Your task to perform on an android device: Open calendar and show me the third week of next month Image 0: 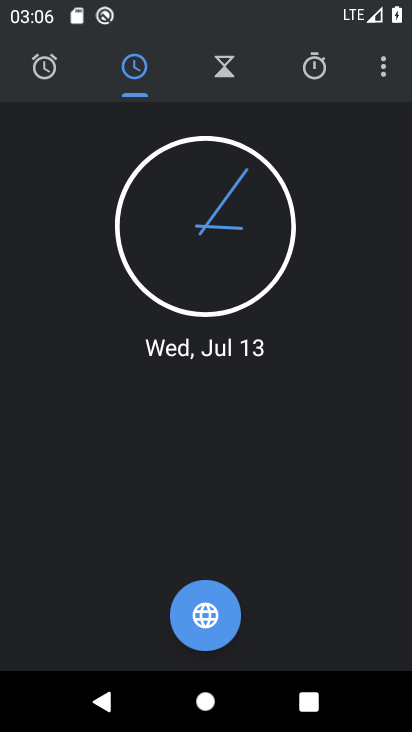
Step 0: press home button
Your task to perform on an android device: Open calendar and show me the third week of next month Image 1: 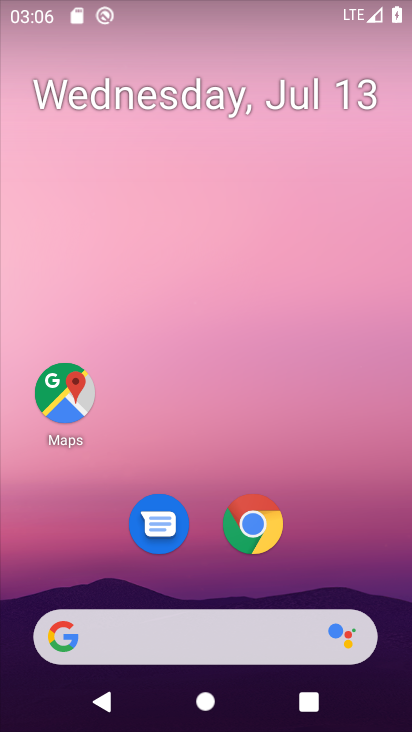
Step 1: drag from (328, 546) to (285, 0)
Your task to perform on an android device: Open calendar and show me the third week of next month Image 2: 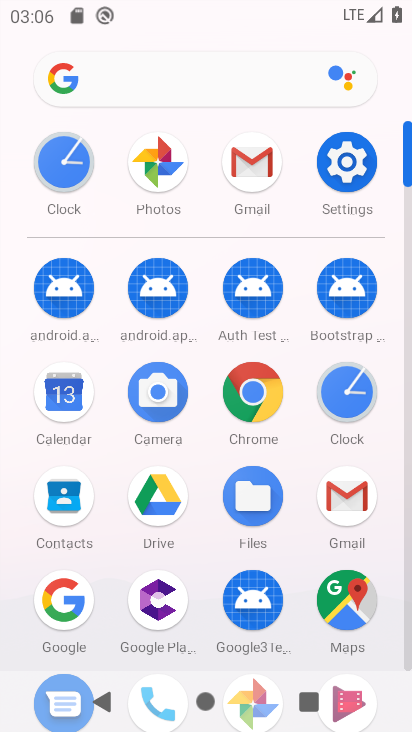
Step 2: click (65, 388)
Your task to perform on an android device: Open calendar and show me the third week of next month Image 3: 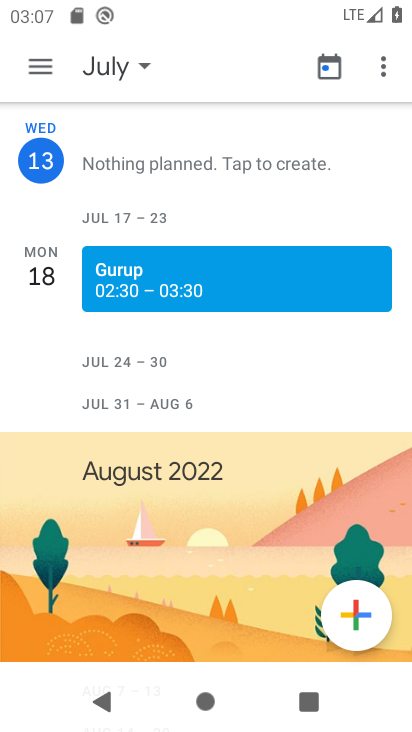
Step 3: click (43, 61)
Your task to perform on an android device: Open calendar and show me the third week of next month Image 4: 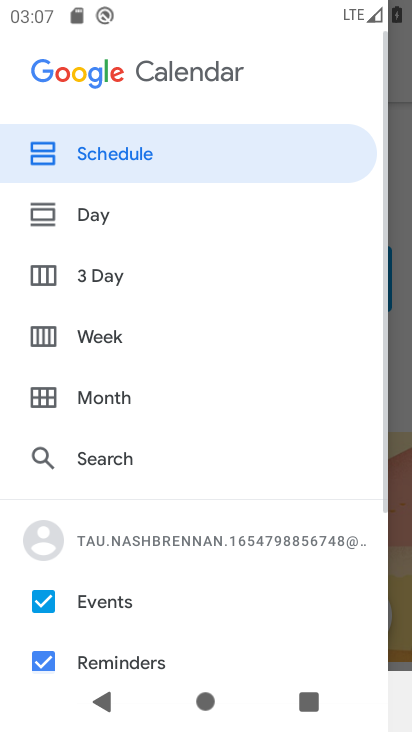
Step 4: click (49, 392)
Your task to perform on an android device: Open calendar and show me the third week of next month Image 5: 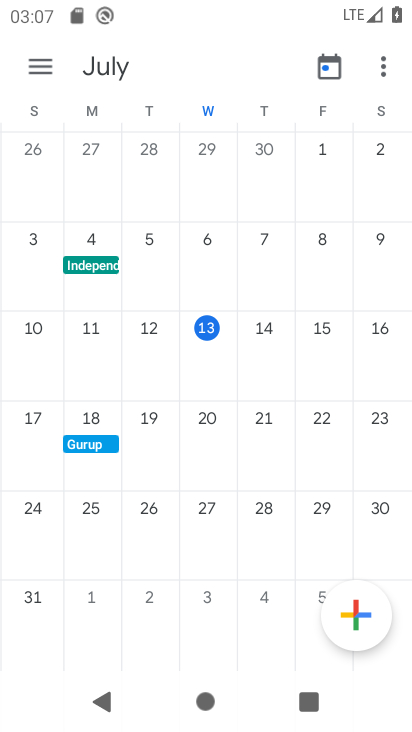
Step 5: drag from (380, 382) to (216, 406)
Your task to perform on an android device: Open calendar and show me the third week of next month Image 6: 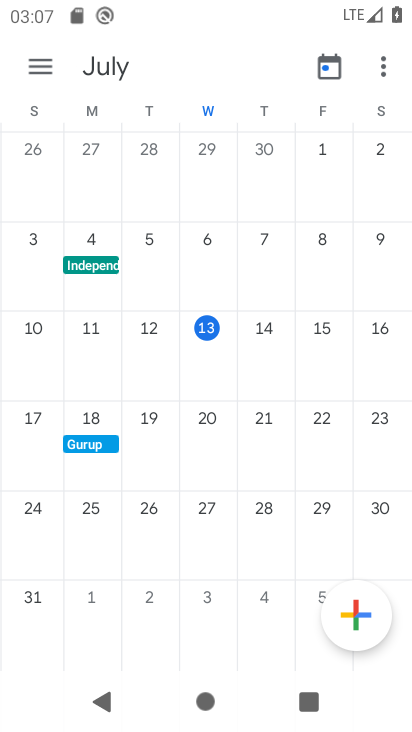
Step 6: click (44, 63)
Your task to perform on an android device: Open calendar and show me the third week of next month Image 7: 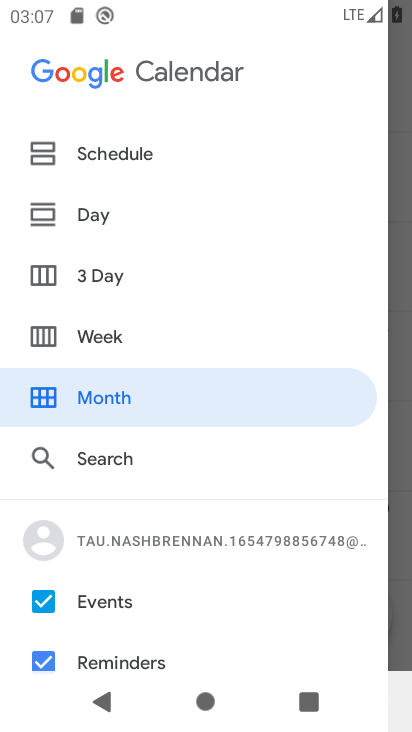
Step 7: click (53, 338)
Your task to perform on an android device: Open calendar and show me the third week of next month Image 8: 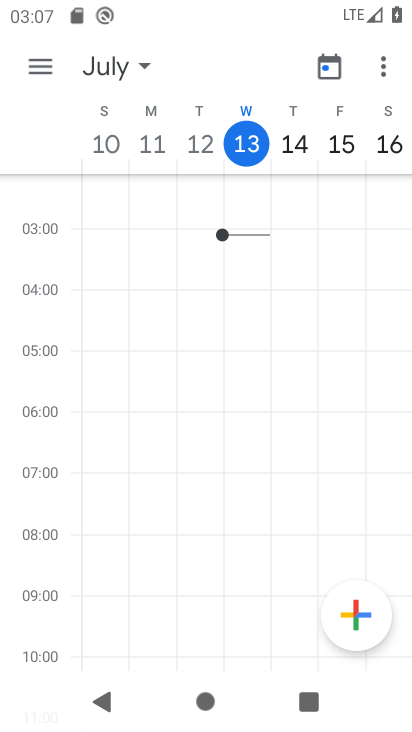
Step 8: task complete